Your task to perform on an android device: change notifications settings Image 0: 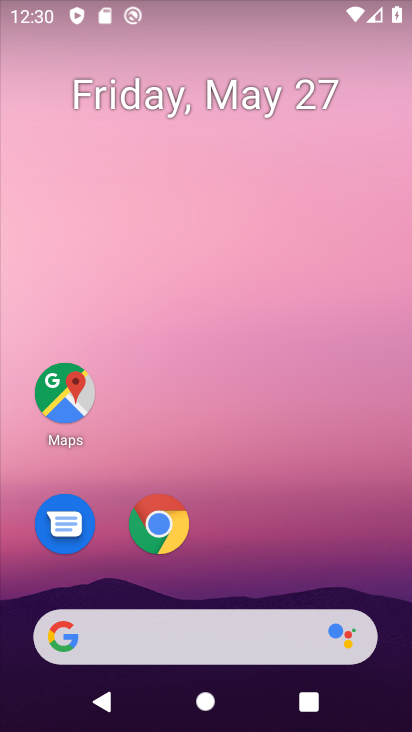
Step 0: drag from (287, 542) to (317, 0)
Your task to perform on an android device: change notifications settings Image 1: 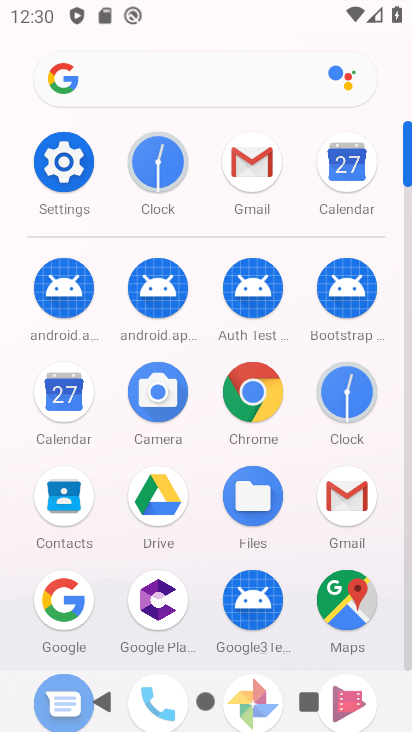
Step 1: click (72, 147)
Your task to perform on an android device: change notifications settings Image 2: 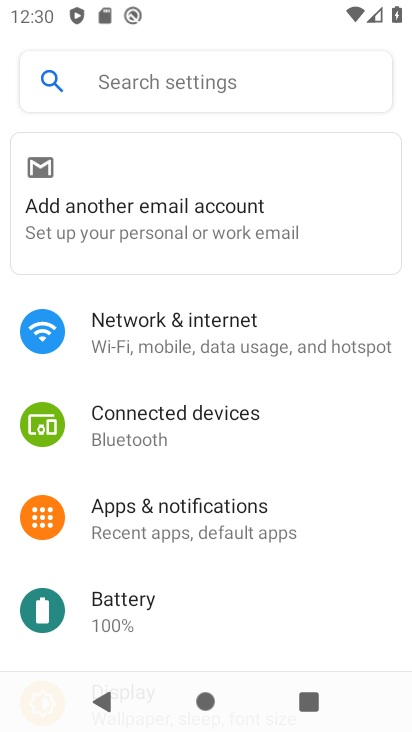
Step 2: click (171, 515)
Your task to perform on an android device: change notifications settings Image 3: 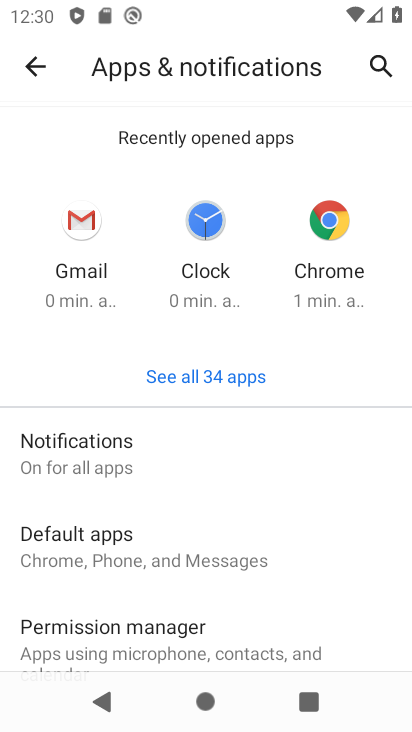
Step 3: click (215, 460)
Your task to perform on an android device: change notifications settings Image 4: 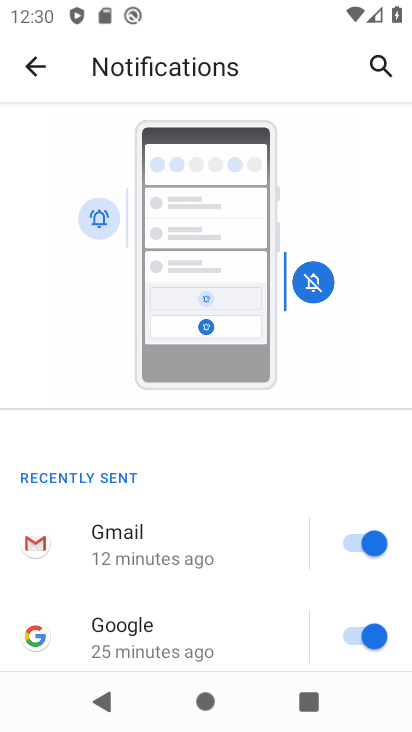
Step 4: drag from (240, 605) to (247, 194)
Your task to perform on an android device: change notifications settings Image 5: 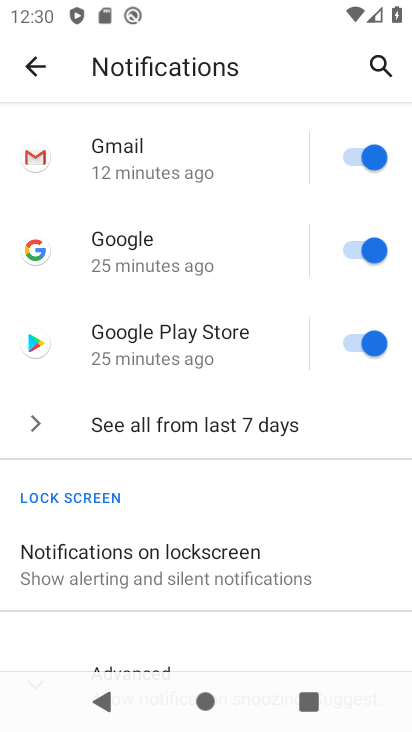
Step 5: click (236, 415)
Your task to perform on an android device: change notifications settings Image 6: 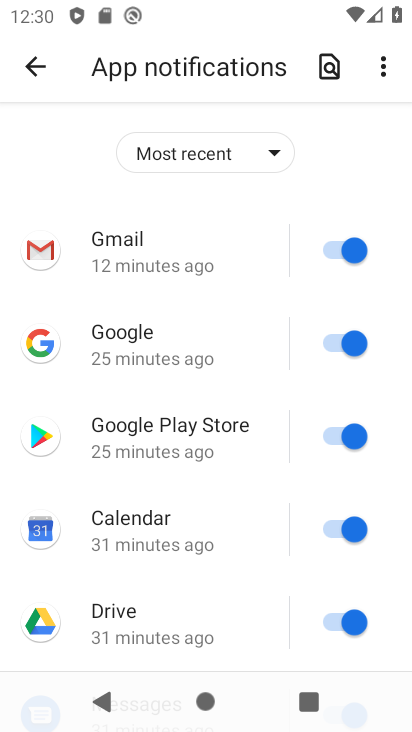
Step 6: click (231, 544)
Your task to perform on an android device: change notifications settings Image 7: 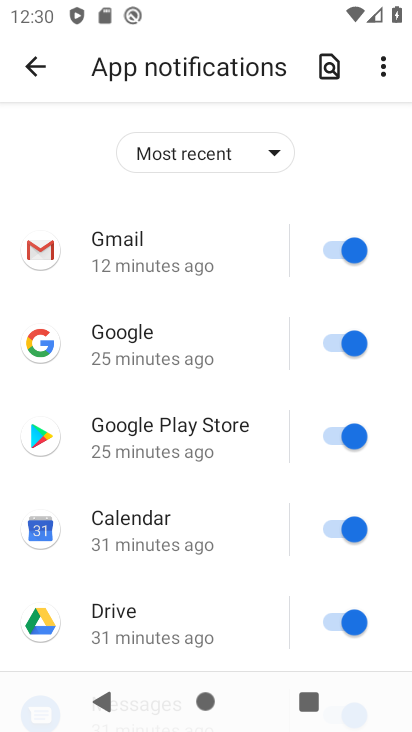
Step 7: click (346, 251)
Your task to perform on an android device: change notifications settings Image 8: 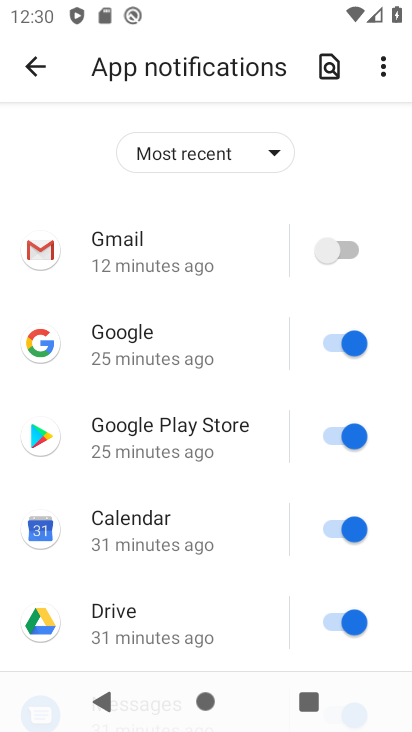
Step 8: click (343, 342)
Your task to perform on an android device: change notifications settings Image 9: 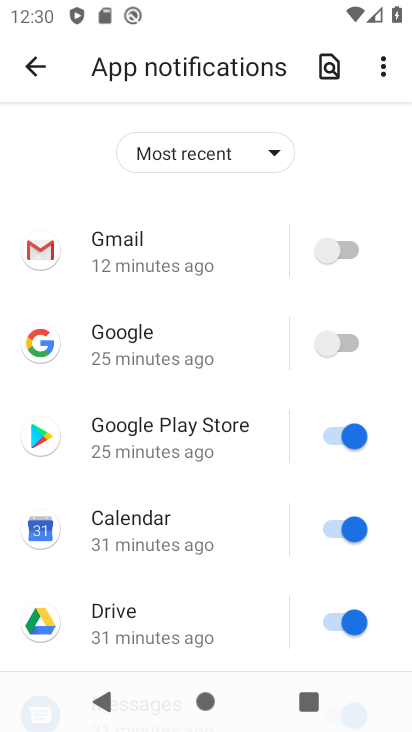
Step 9: click (338, 429)
Your task to perform on an android device: change notifications settings Image 10: 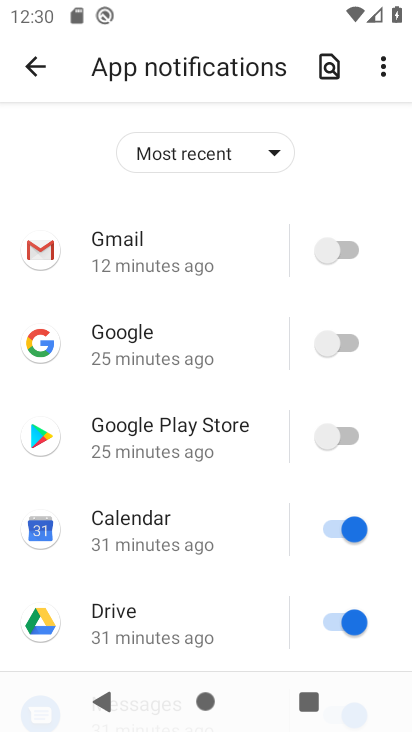
Step 10: click (338, 519)
Your task to perform on an android device: change notifications settings Image 11: 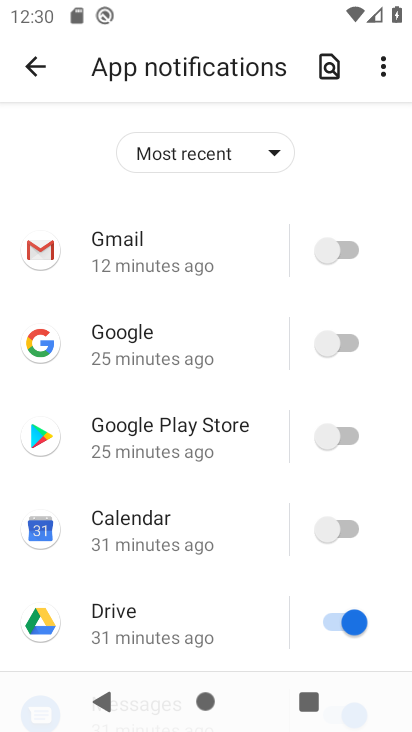
Step 11: click (331, 621)
Your task to perform on an android device: change notifications settings Image 12: 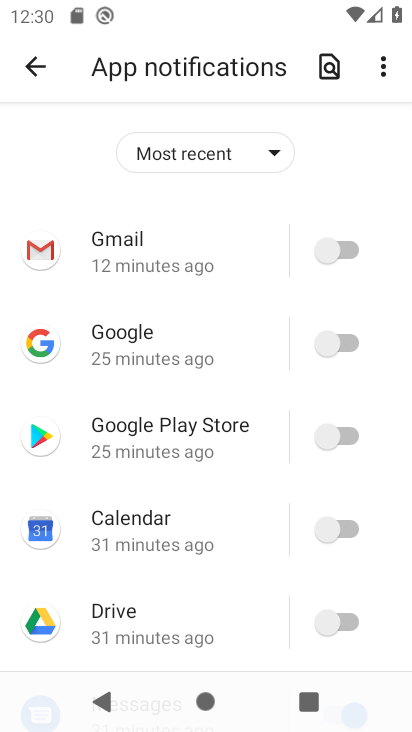
Step 12: drag from (248, 593) to (246, 110)
Your task to perform on an android device: change notifications settings Image 13: 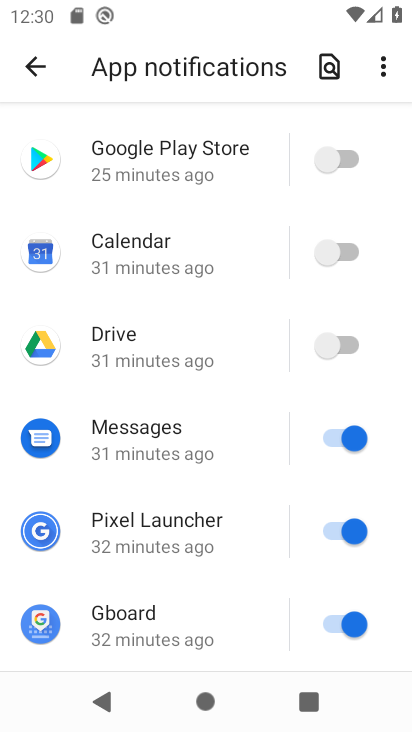
Step 13: click (340, 439)
Your task to perform on an android device: change notifications settings Image 14: 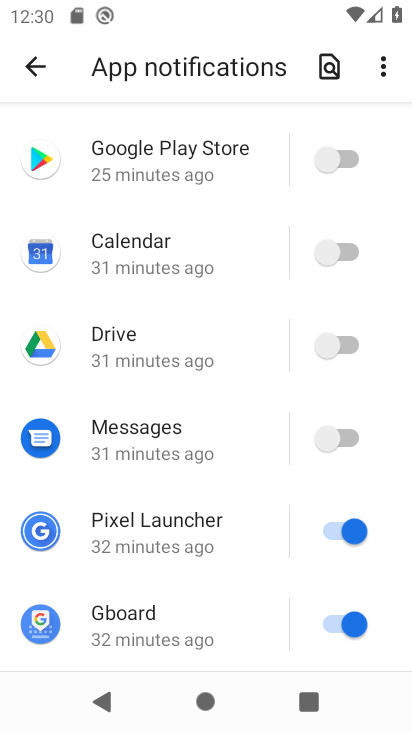
Step 14: click (345, 527)
Your task to perform on an android device: change notifications settings Image 15: 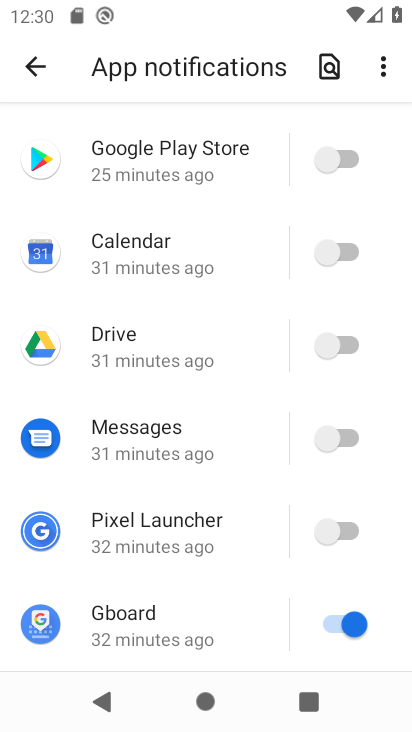
Step 15: click (338, 617)
Your task to perform on an android device: change notifications settings Image 16: 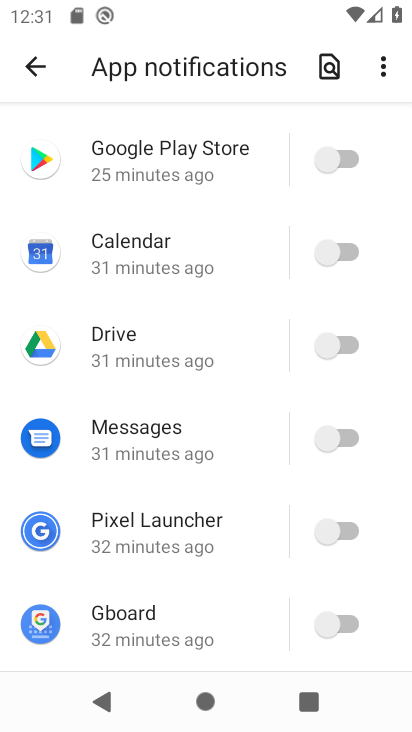
Step 16: task complete